Your task to perform on an android device: change the clock style Image 0: 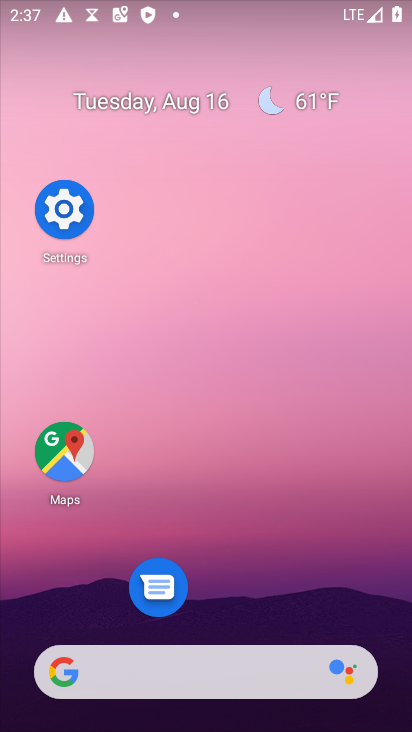
Step 0: drag from (256, 581) to (318, 36)
Your task to perform on an android device: change the clock style Image 1: 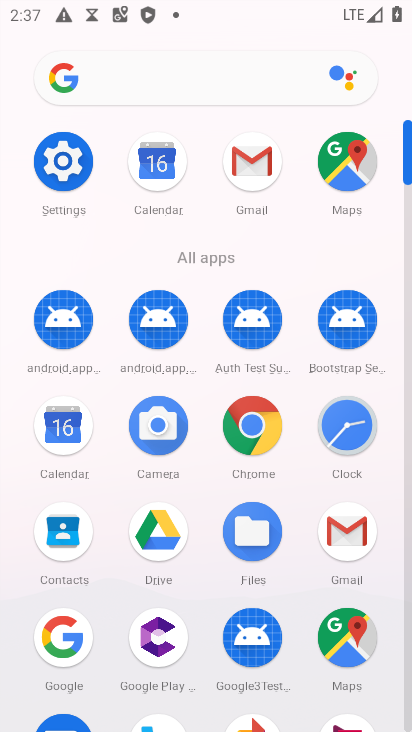
Step 1: click (347, 419)
Your task to perform on an android device: change the clock style Image 2: 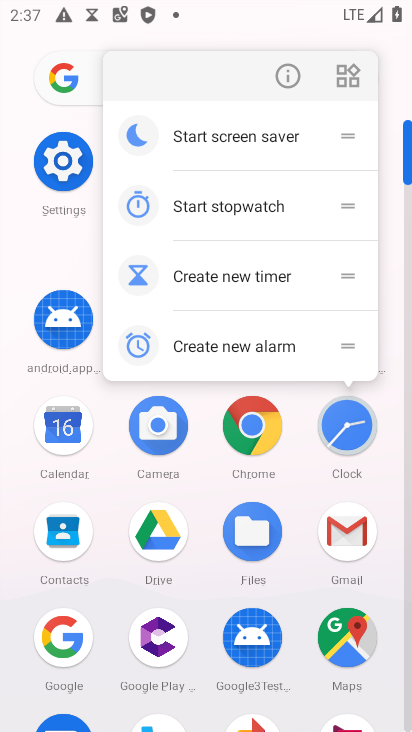
Step 2: click (346, 438)
Your task to perform on an android device: change the clock style Image 3: 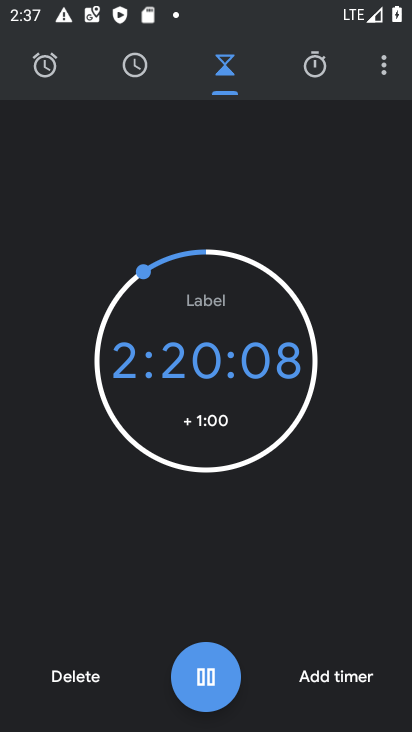
Step 3: click (385, 63)
Your task to perform on an android device: change the clock style Image 4: 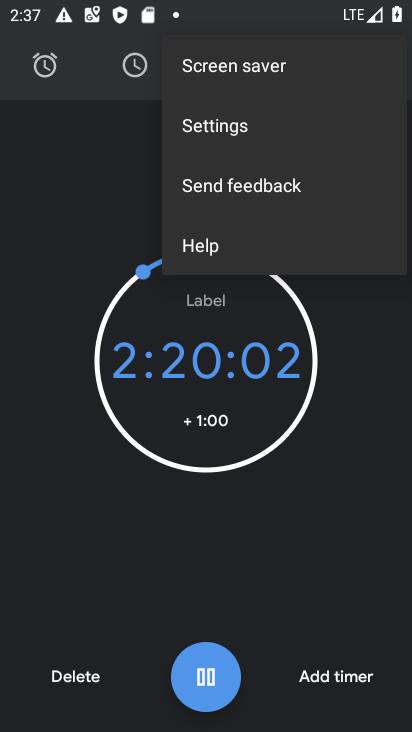
Step 4: click (271, 131)
Your task to perform on an android device: change the clock style Image 5: 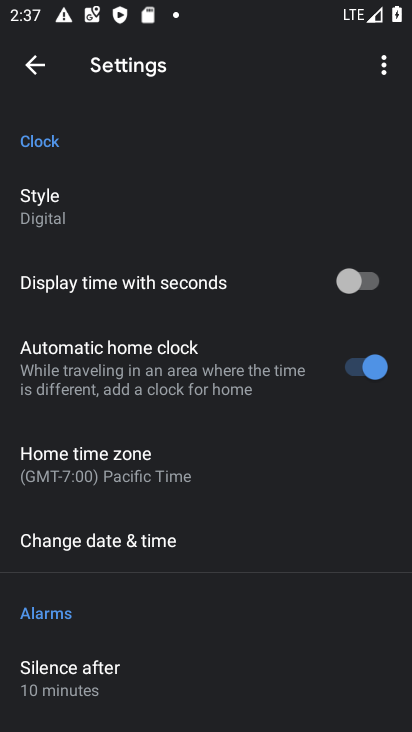
Step 5: click (93, 207)
Your task to perform on an android device: change the clock style Image 6: 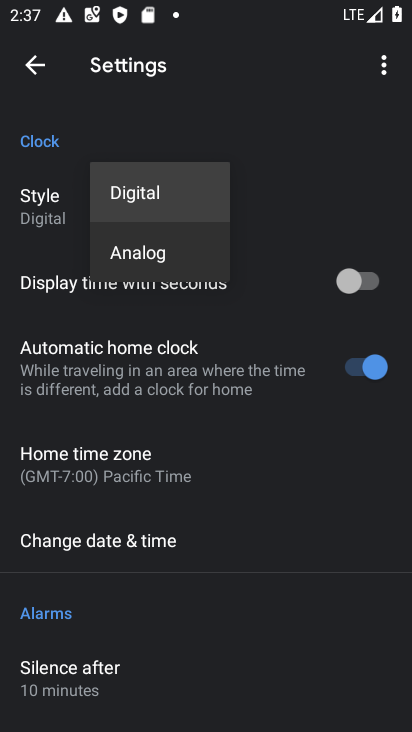
Step 6: click (146, 255)
Your task to perform on an android device: change the clock style Image 7: 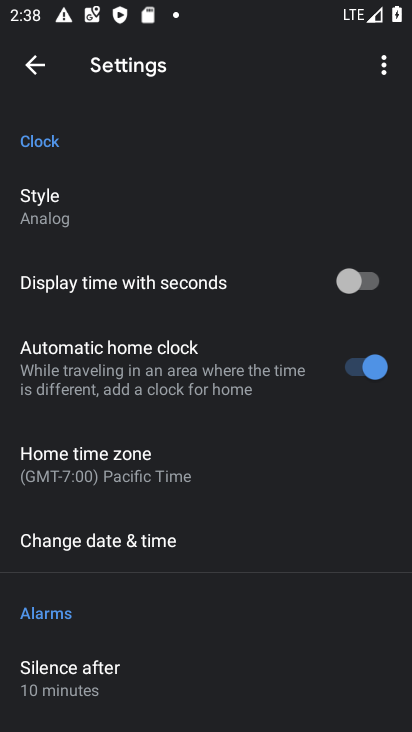
Step 7: task complete